Your task to perform on an android device: Open calendar and show me the second week of next month Image 0: 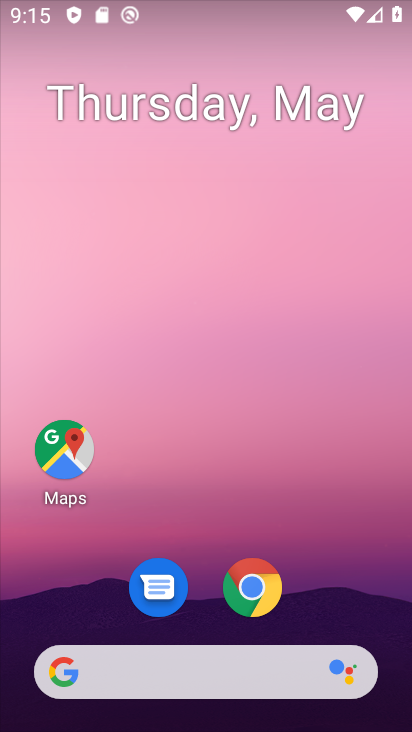
Step 0: drag from (372, 567) to (299, 13)
Your task to perform on an android device: Open calendar and show me the second week of next month Image 1: 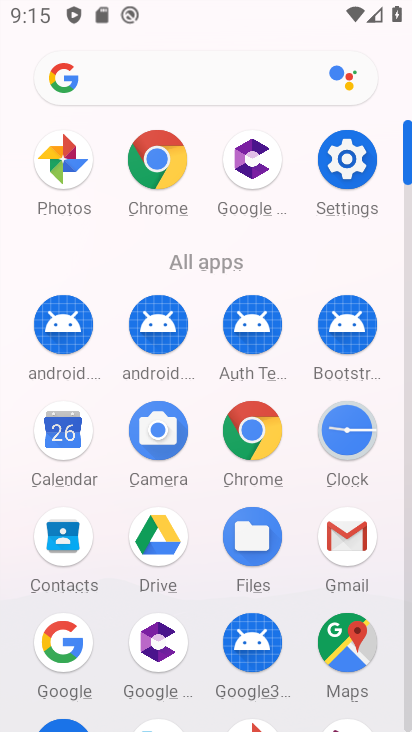
Step 1: click (68, 427)
Your task to perform on an android device: Open calendar and show me the second week of next month Image 2: 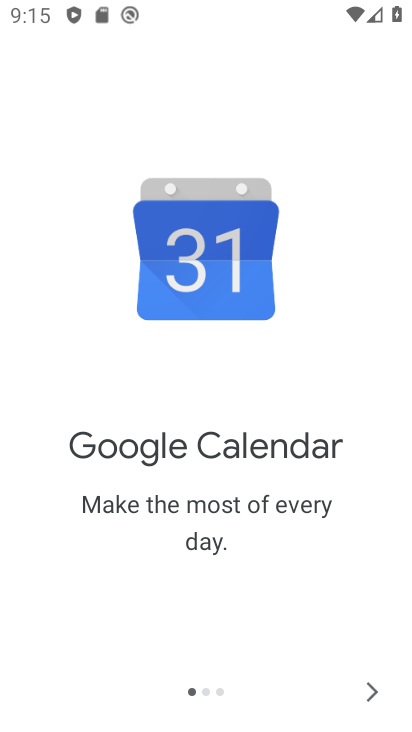
Step 2: click (373, 692)
Your task to perform on an android device: Open calendar and show me the second week of next month Image 3: 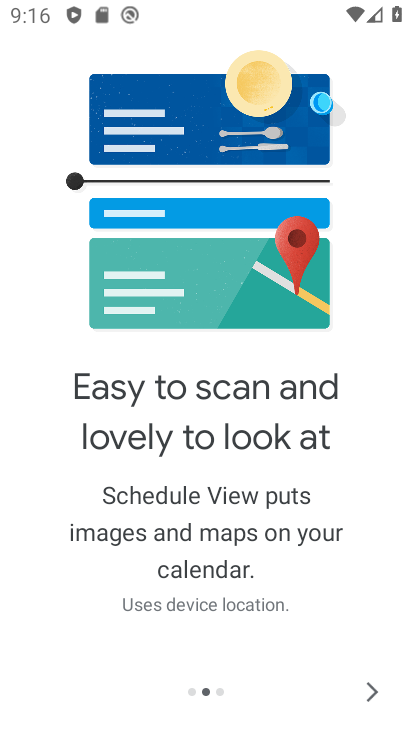
Step 3: click (375, 698)
Your task to perform on an android device: Open calendar and show me the second week of next month Image 4: 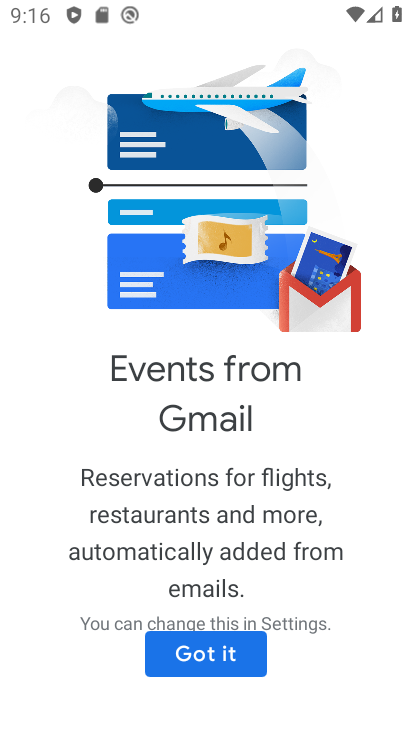
Step 4: click (186, 670)
Your task to perform on an android device: Open calendar and show me the second week of next month Image 5: 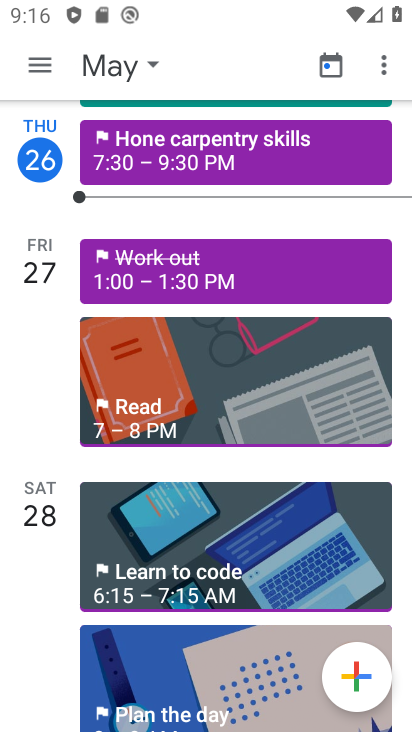
Step 5: click (142, 61)
Your task to perform on an android device: Open calendar and show me the second week of next month Image 6: 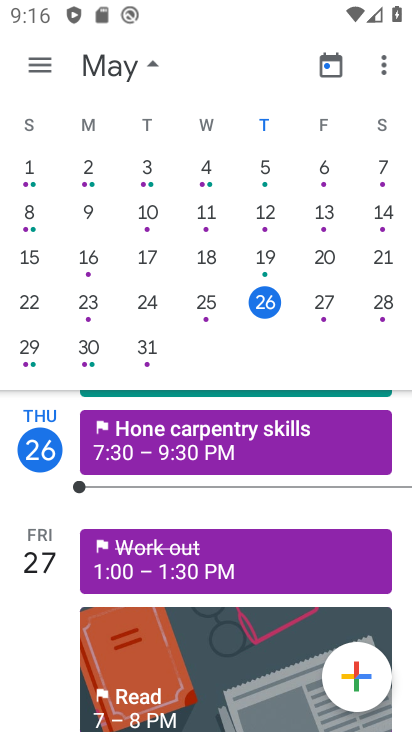
Step 6: drag from (333, 240) to (0, 149)
Your task to perform on an android device: Open calendar and show me the second week of next month Image 7: 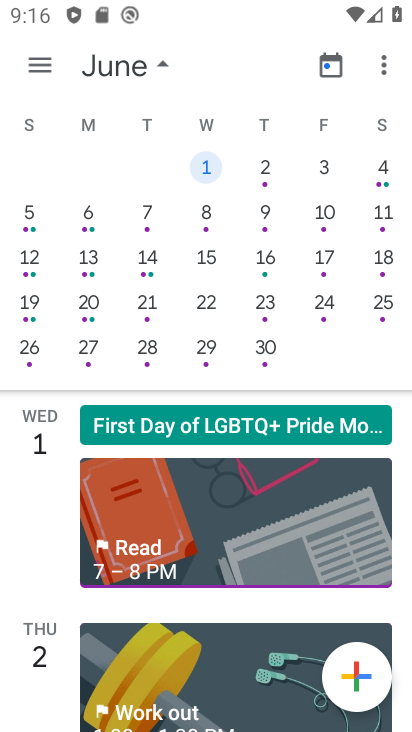
Step 7: click (40, 61)
Your task to perform on an android device: Open calendar and show me the second week of next month Image 8: 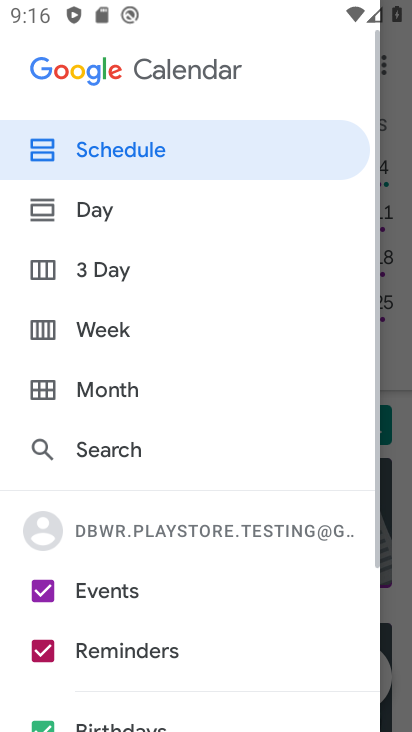
Step 8: click (83, 334)
Your task to perform on an android device: Open calendar and show me the second week of next month Image 9: 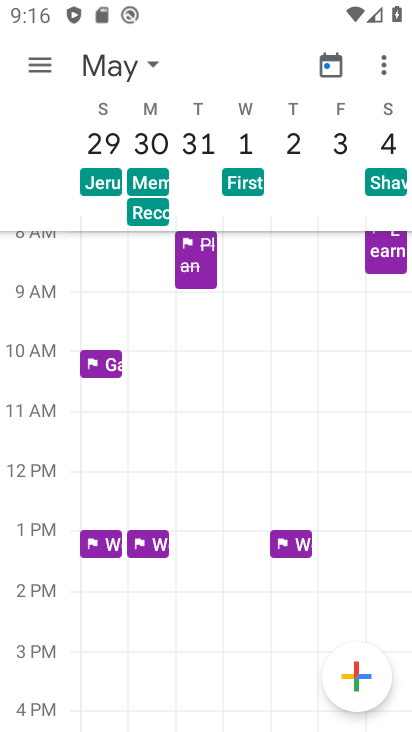
Step 9: task complete